Your task to perform on an android device: change notifications settings Image 0: 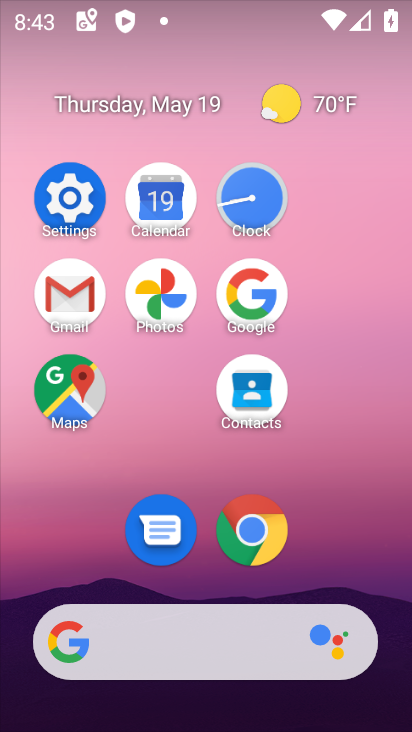
Step 0: click (62, 197)
Your task to perform on an android device: change notifications settings Image 1: 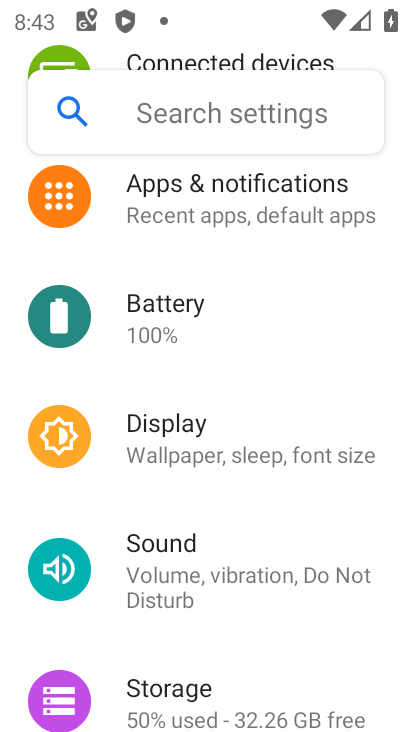
Step 1: click (290, 177)
Your task to perform on an android device: change notifications settings Image 2: 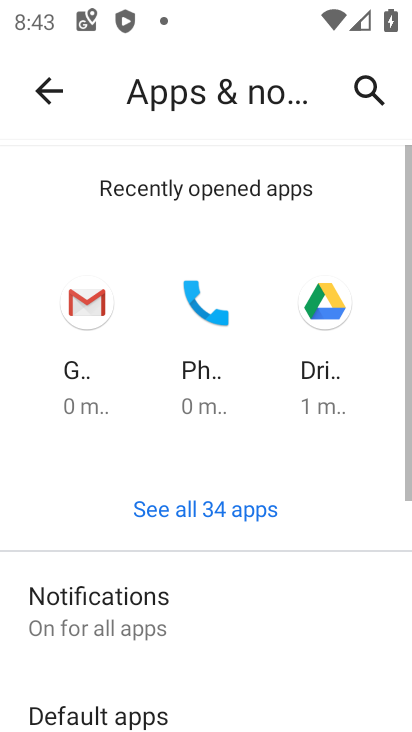
Step 2: click (208, 626)
Your task to perform on an android device: change notifications settings Image 3: 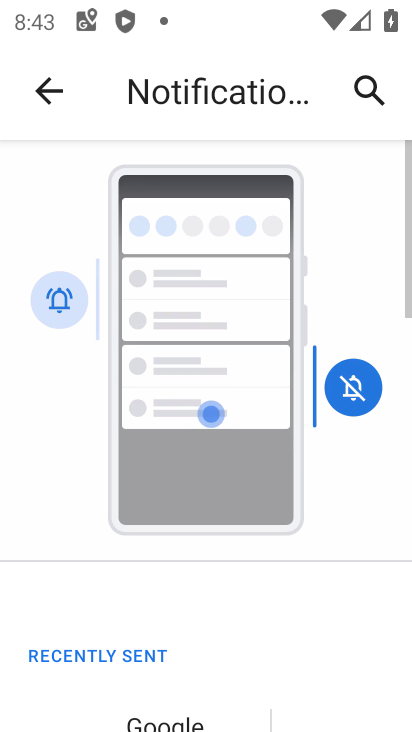
Step 3: drag from (254, 588) to (293, 38)
Your task to perform on an android device: change notifications settings Image 4: 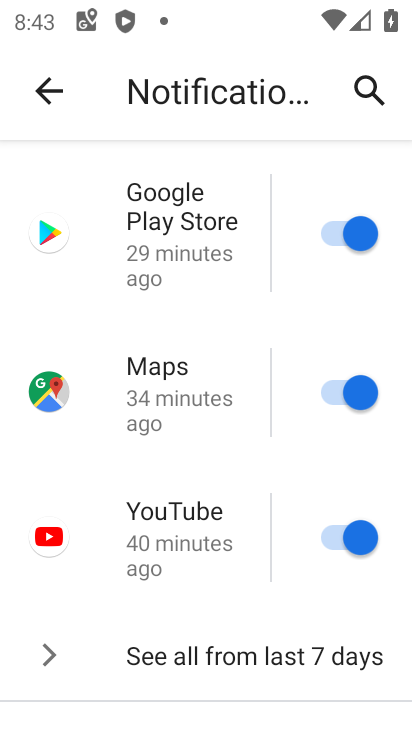
Step 4: drag from (224, 503) to (262, 92)
Your task to perform on an android device: change notifications settings Image 5: 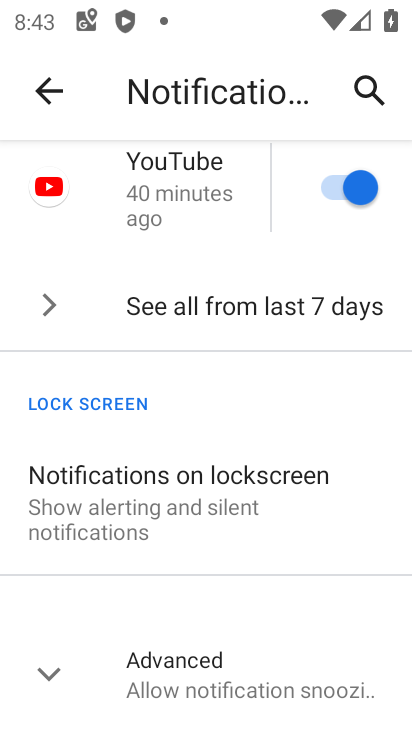
Step 5: drag from (330, 627) to (345, 232)
Your task to perform on an android device: change notifications settings Image 6: 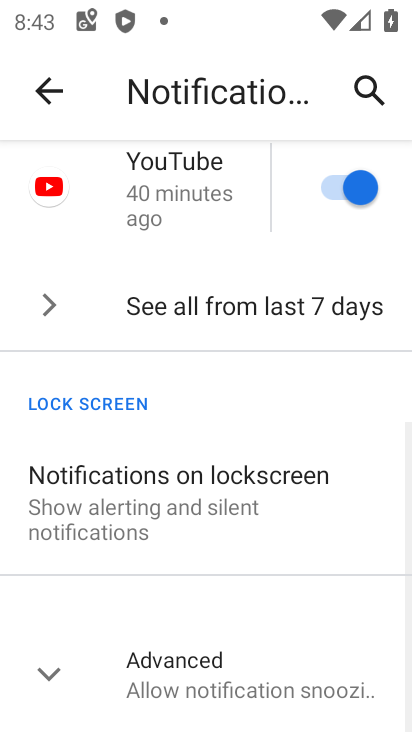
Step 6: click (234, 695)
Your task to perform on an android device: change notifications settings Image 7: 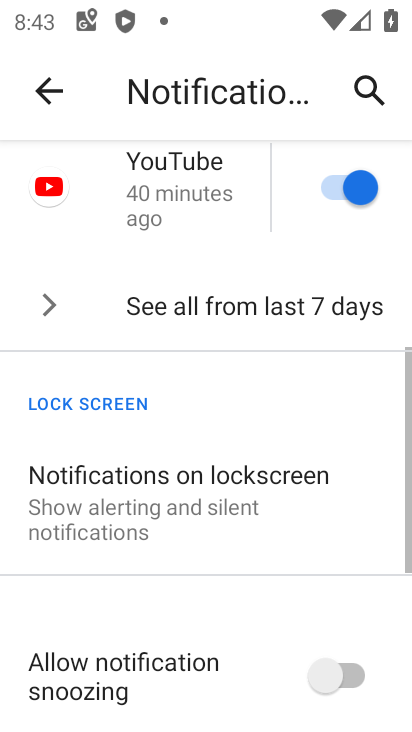
Step 7: drag from (270, 655) to (317, 182)
Your task to perform on an android device: change notifications settings Image 8: 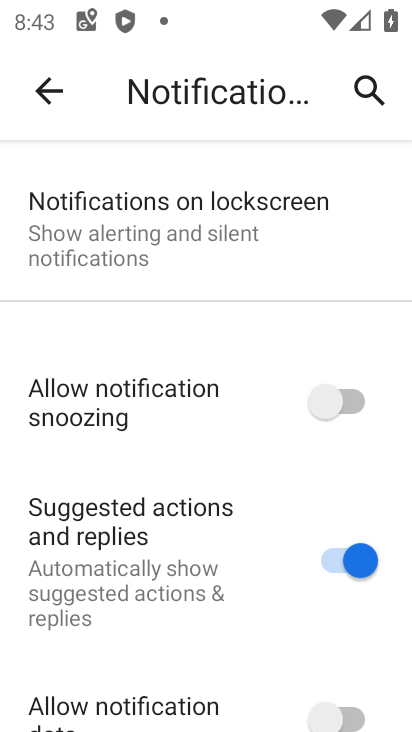
Step 8: click (334, 397)
Your task to perform on an android device: change notifications settings Image 9: 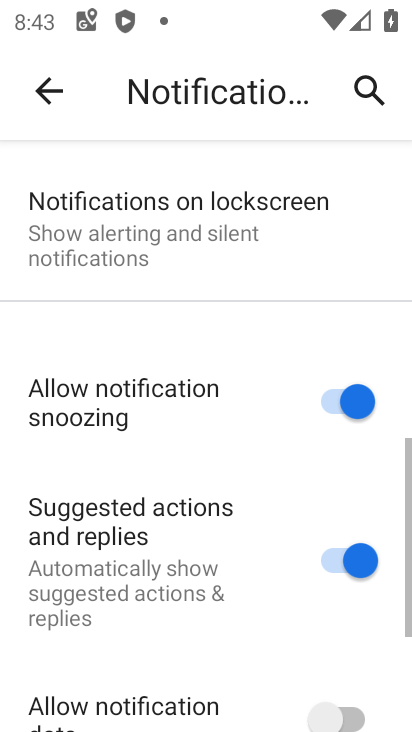
Step 9: click (334, 560)
Your task to perform on an android device: change notifications settings Image 10: 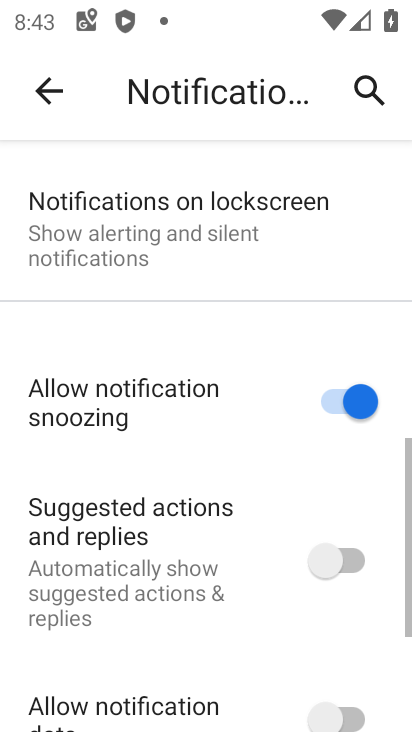
Step 10: click (349, 720)
Your task to perform on an android device: change notifications settings Image 11: 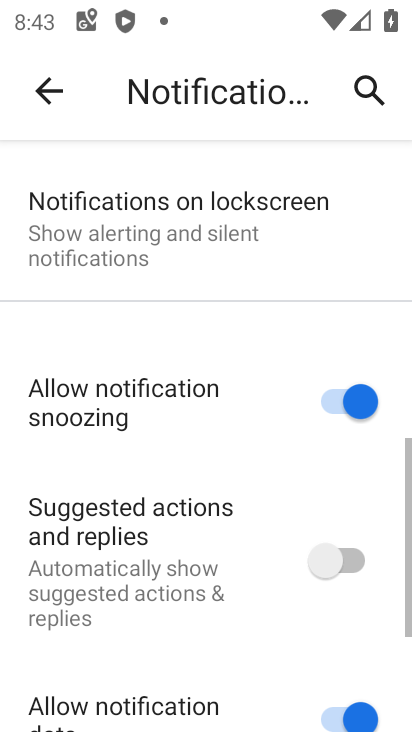
Step 11: task complete